Your task to perform on an android device: open sync settings in chrome Image 0: 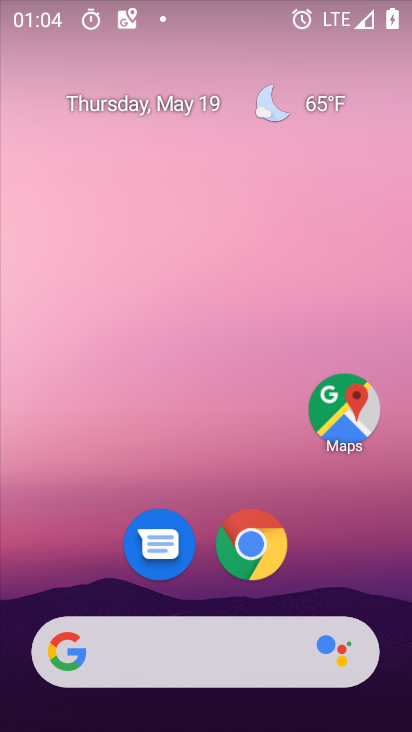
Step 0: drag from (366, 575) to (398, 52)
Your task to perform on an android device: open sync settings in chrome Image 1: 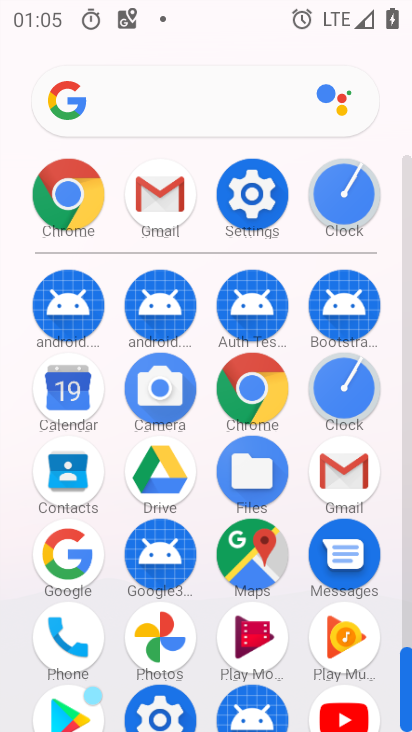
Step 1: click (263, 405)
Your task to perform on an android device: open sync settings in chrome Image 2: 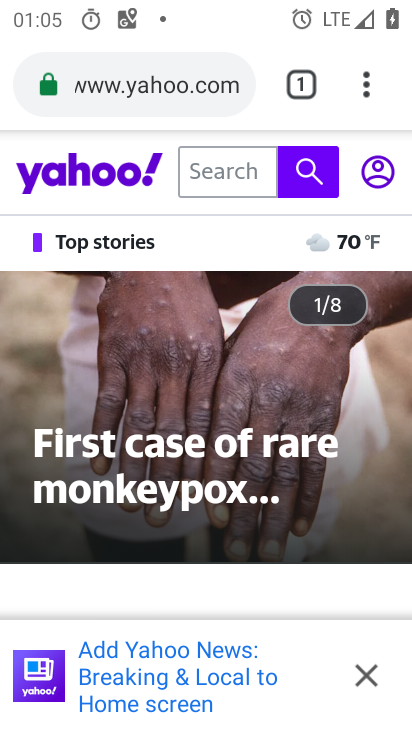
Step 2: click (367, 93)
Your task to perform on an android device: open sync settings in chrome Image 3: 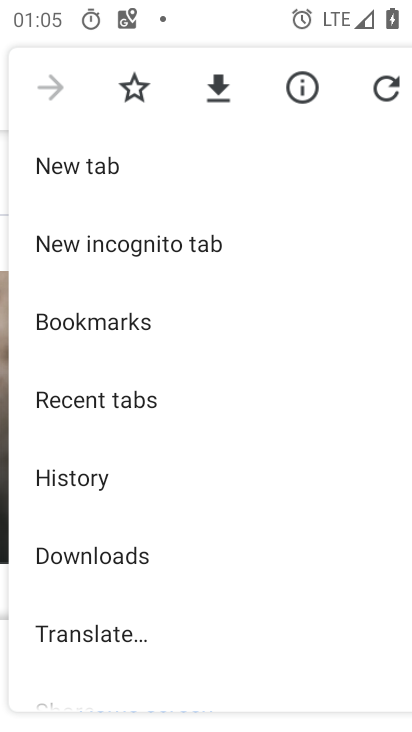
Step 3: drag from (302, 603) to (294, 424)
Your task to perform on an android device: open sync settings in chrome Image 4: 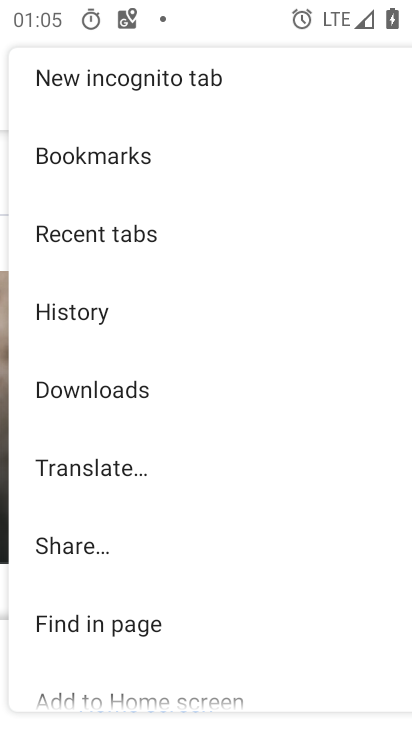
Step 4: drag from (285, 600) to (296, 463)
Your task to perform on an android device: open sync settings in chrome Image 5: 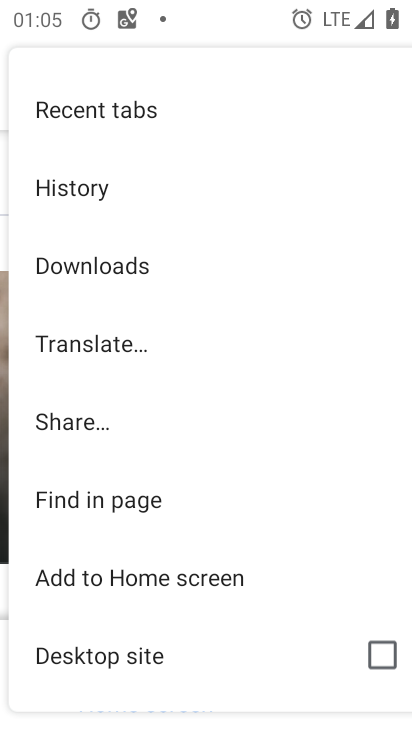
Step 5: drag from (269, 585) to (289, 415)
Your task to perform on an android device: open sync settings in chrome Image 6: 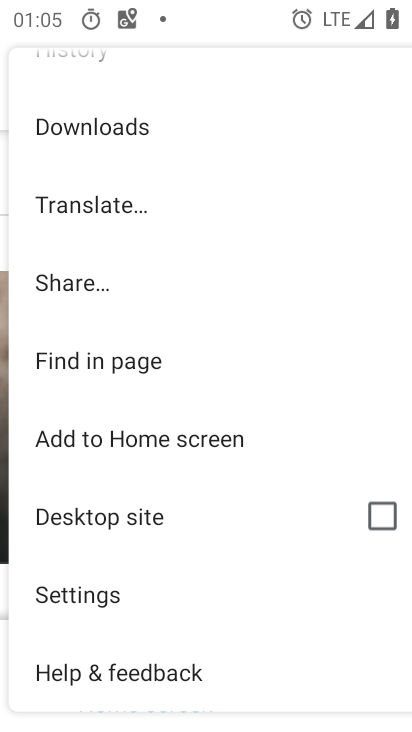
Step 6: click (145, 588)
Your task to perform on an android device: open sync settings in chrome Image 7: 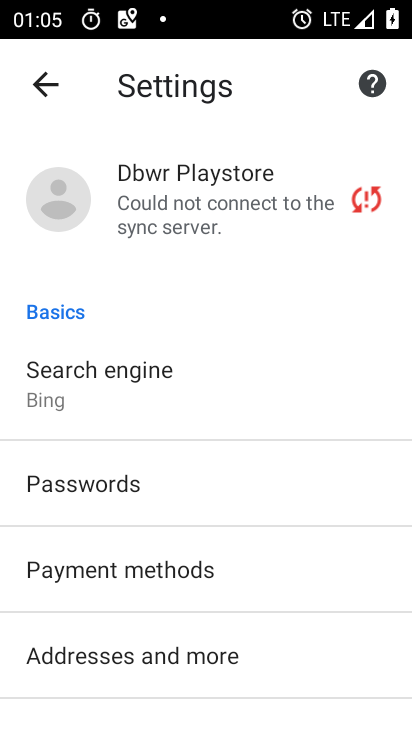
Step 7: drag from (307, 594) to (336, 432)
Your task to perform on an android device: open sync settings in chrome Image 8: 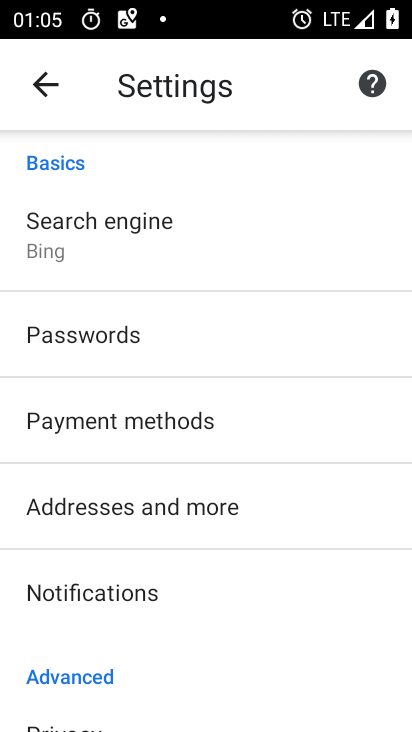
Step 8: drag from (341, 608) to (348, 424)
Your task to perform on an android device: open sync settings in chrome Image 9: 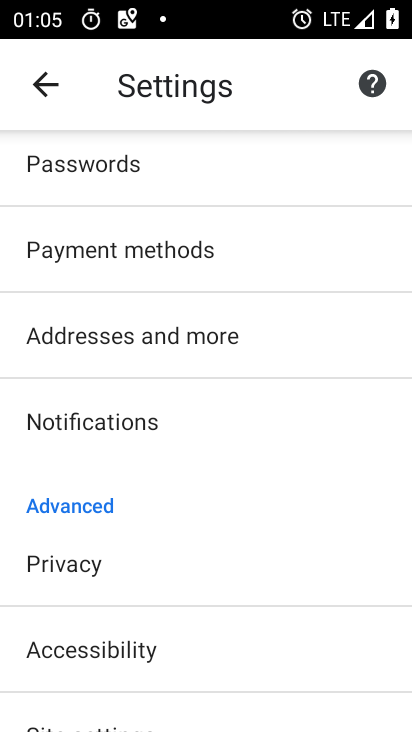
Step 9: drag from (321, 612) to (324, 454)
Your task to perform on an android device: open sync settings in chrome Image 10: 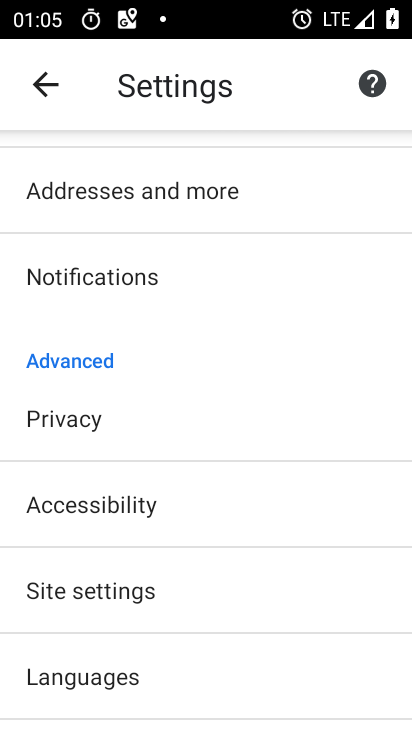
Step 10: drag from (298, 647) to (285, 517)
Your task to perform on an android device: open sync settings in chrome Image 11: 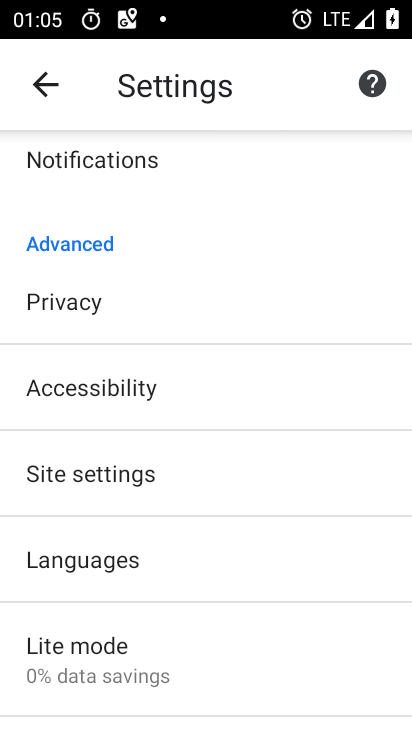
Step 11: click (270, 476)
Your task to perform on an android device: open sync settings in chrome Image 12: 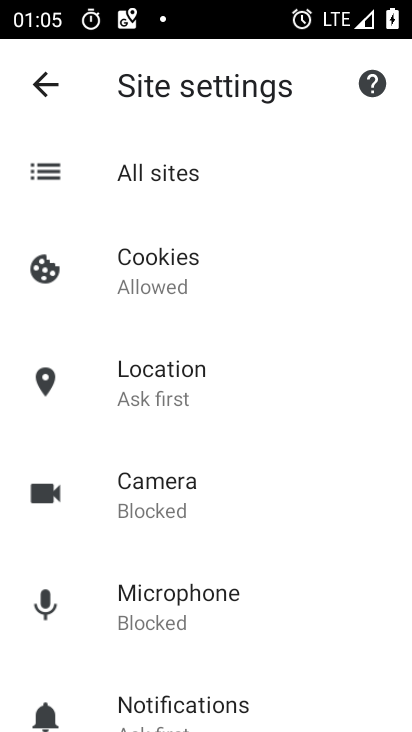
Step 12: drag from (292, 624) to (313, 518)
Your task to perform on an android device: open sync settings in chrome Image 13: 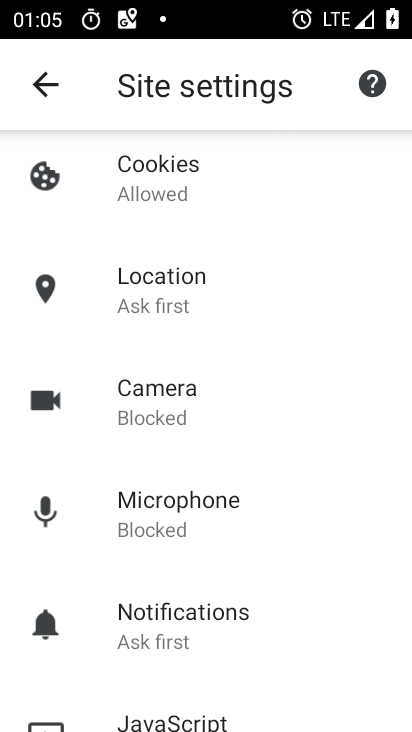
Step 13: drag from (317, 616) to (329, 500)
Your task to perform on an android device: open sync settings in chrome Image 14: 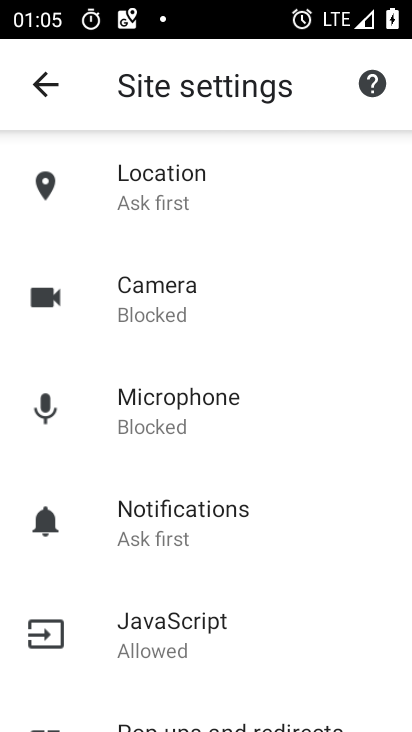
Step 14: drag from (326, 630) to (337, 504)
Your task to perform on an android device: open sync settings in chrome Image 15: 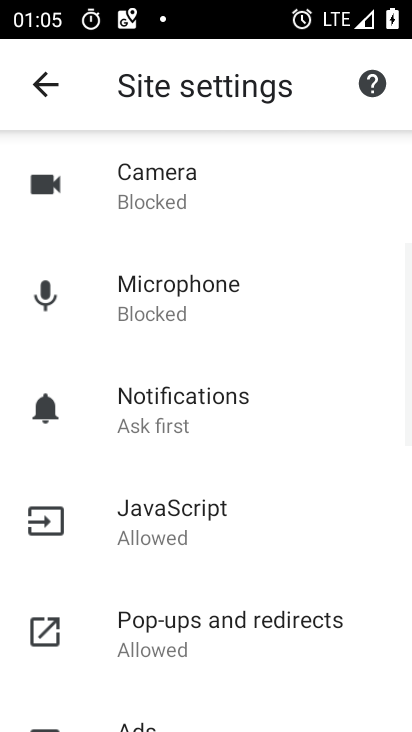
Step 15: drag from (337, 670) to (341, 507)
Your task to perform on an android device: open sync settings in chrome Image 16: 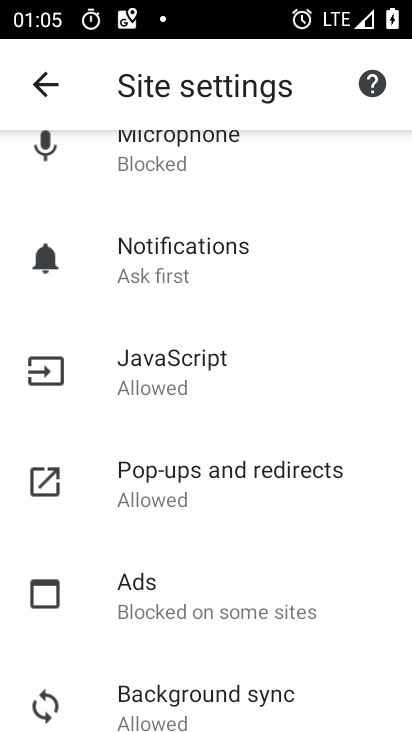
Step 16: drag from (341, 648) to (352, 484)
Your task to perform on an android device: open sync settings in chrome Image 17: 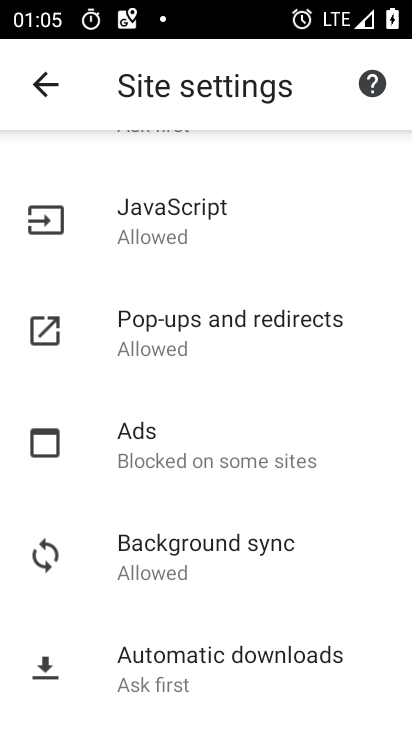
Step 17: drag from (332, 643) to (342, 526)
Your task to perform on an android device: open sync settings in chrome Image 18: 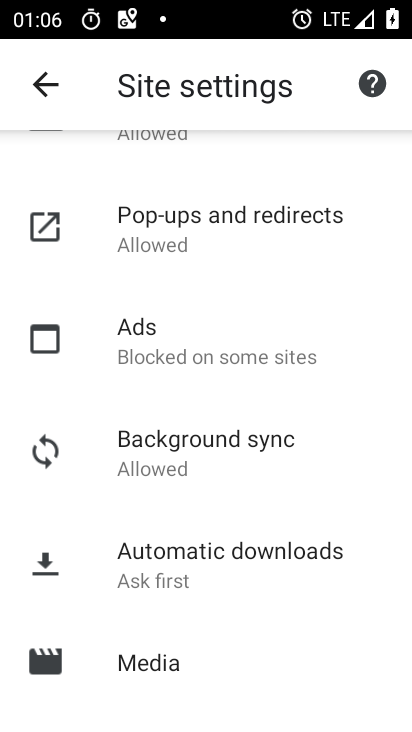
Step 18: drag from (349, 643) to (349, 519)
Your task to perform on an android device: open sync settings in chrome Image 19: 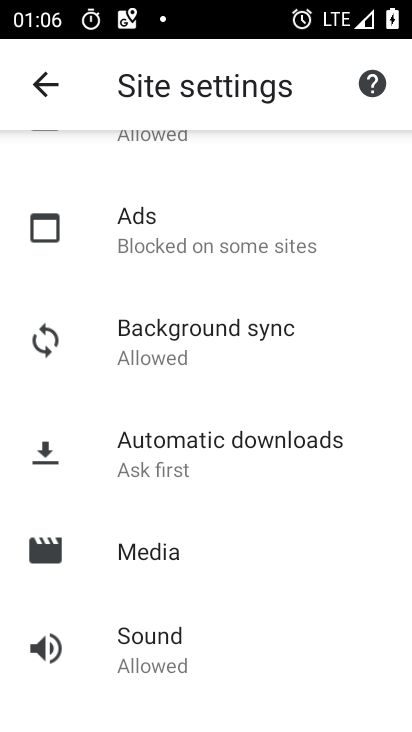
Step 19: drag from (343, 601) to (345, 494)
Your task to perform on an android device: open sync settings in chrome Image 20: 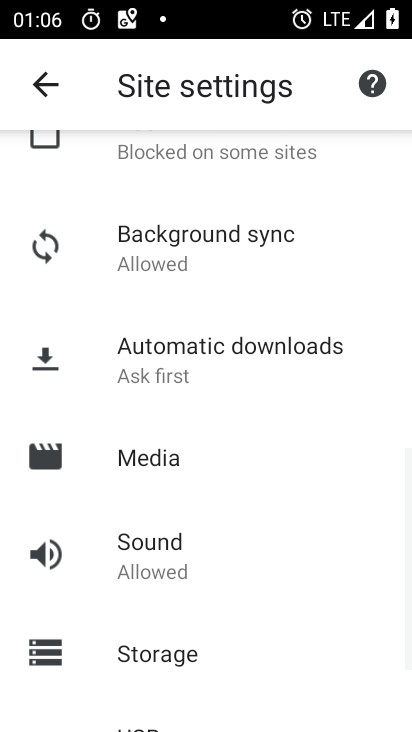
Step 20: drag from (327, 610) to (340, 483)
Your task to perform on an android device: open sync settings in chrome Image 21: 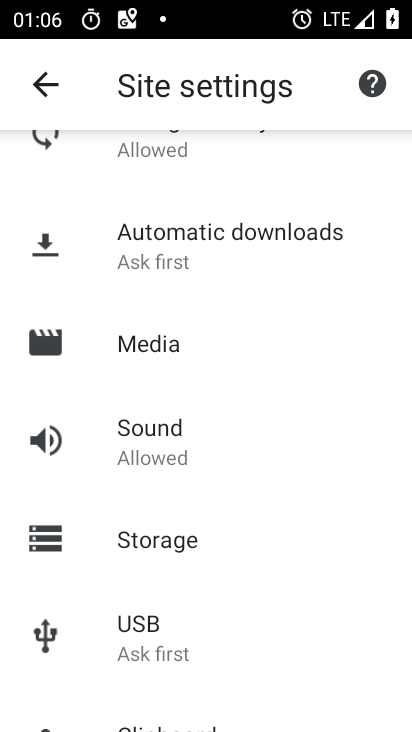
Step 21: drag from (330, 627) to (339, 483)
Your task to perform on an android device: open sync settings in chrome Image 22: 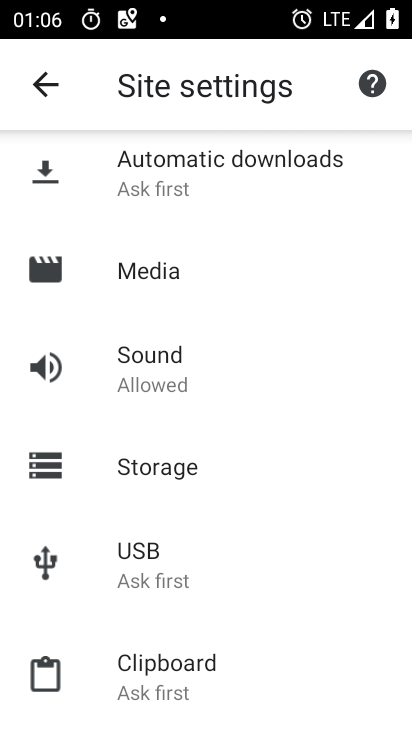
Step 22: drag from (332, 357) to (318, 528)
Your task to perform on an android device: open sync settings in chrome Image 23: 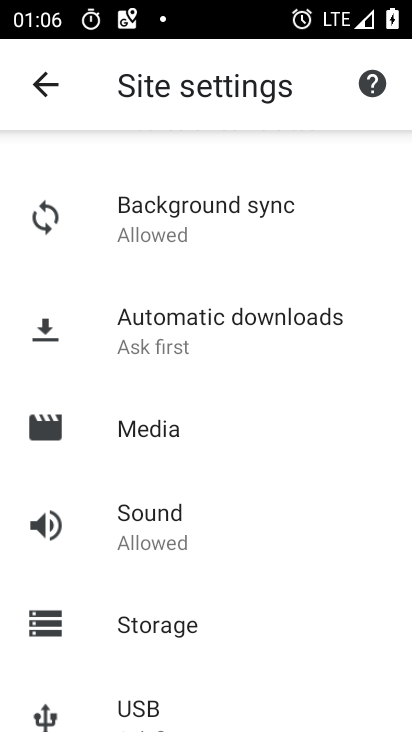
Step 23: click (276, 226)
Your task to perform on an android device: open sync settings in chrome Image 24: 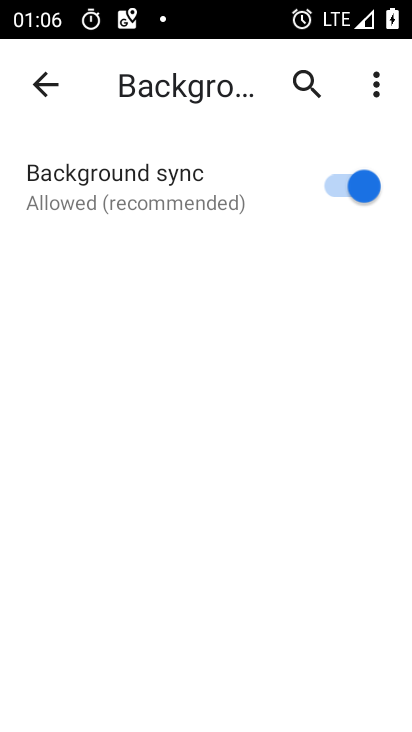
Step 24: task complete